Your task to perform on an android device: Open location settings Image 0: 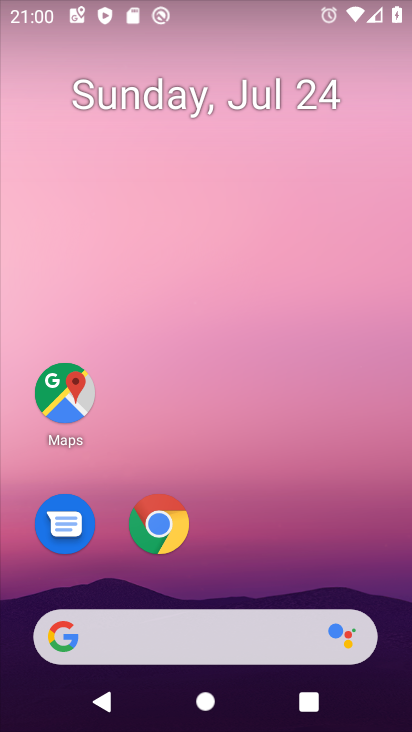
Step 0: drag from (259, 558) to (263, 31)
Your task to perform on an android device: Open location settings Image 1: 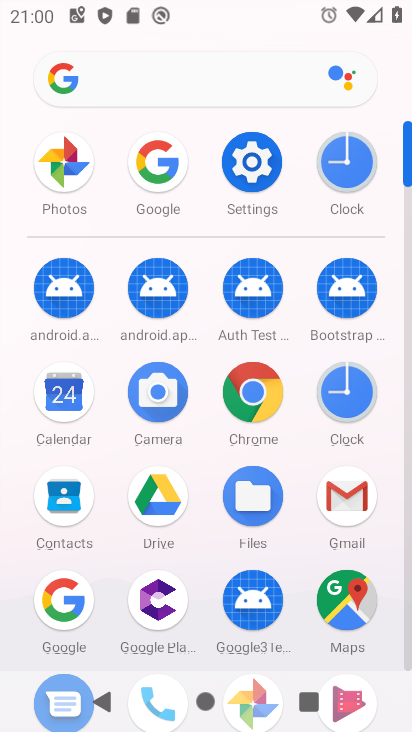
Step 1: click (246, 151)
Your task to perform on an android device: Open location settings Image 2: 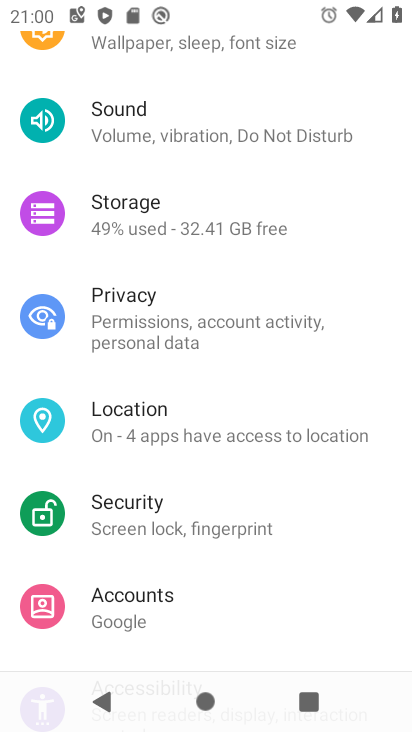
Step 2: click (204, 423)
Your task to perform on an android device: Open location settings Image 3: 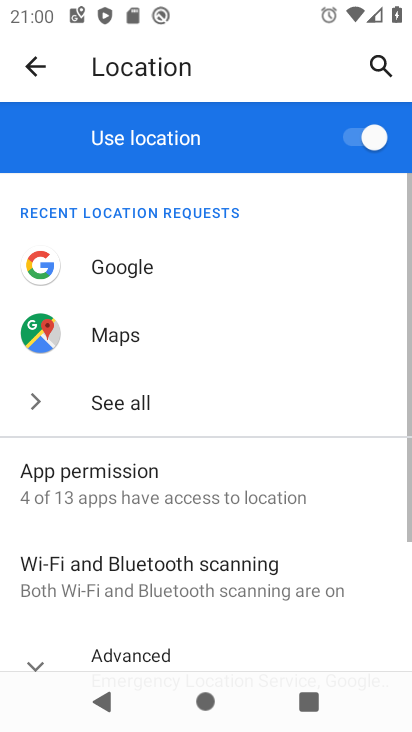
Step 3: drag from (204, 495) to (271, 84)
Your task to perform on an android device: Open location settings Image 4: 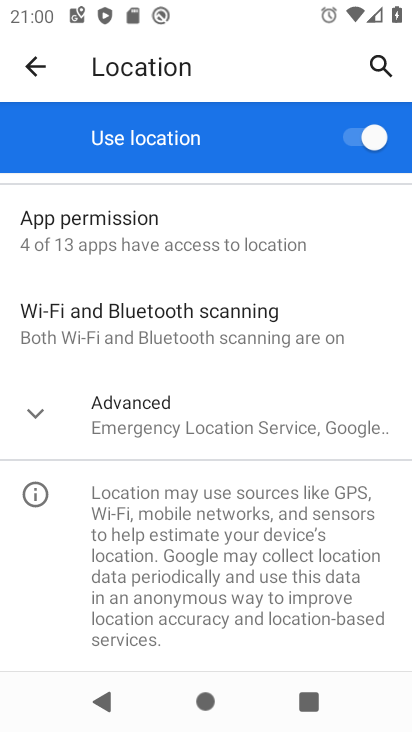
Step 4: click (46, 409)
Your task to perform on an android device: Open location settings Image 5: 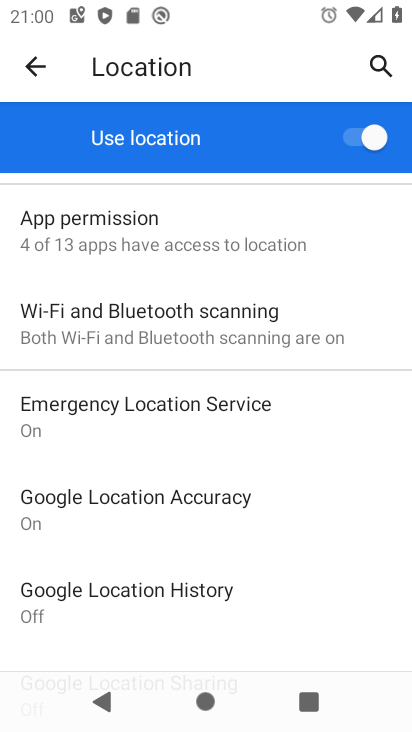
Step 5: task complete